Your task to perform on an android device: open a new tab in the chrome app Image 0: 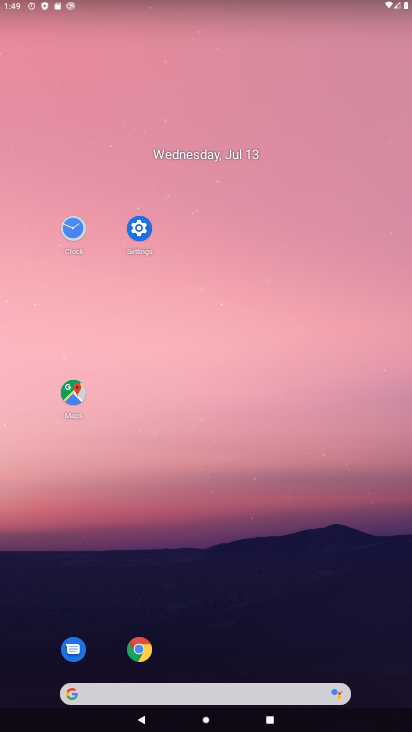
Step 0: click (141, 655)
Your task to perform on an android device: open a new tab in the chrome app Image 1: 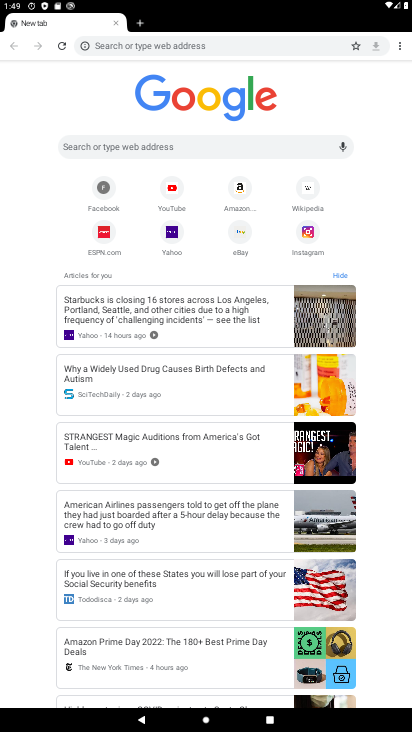
Step 1: click (146, 22)
Your task to perform on an android device: open a new tab in the chrome app Image 2: 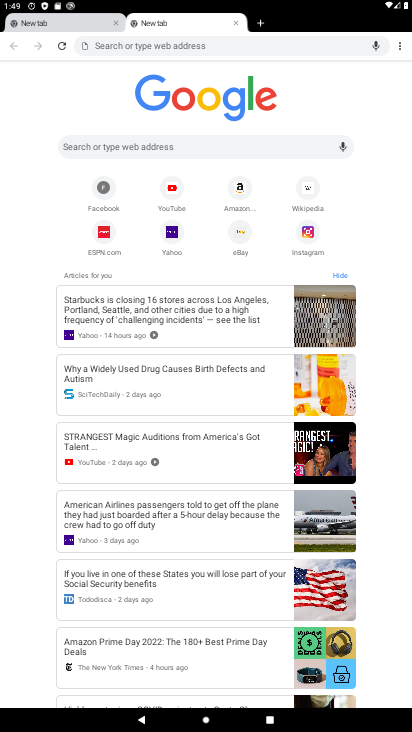
Step 2: task complete